Your task to perform on an android device: Open Youtube and go to the subscriptions tab Image 0: 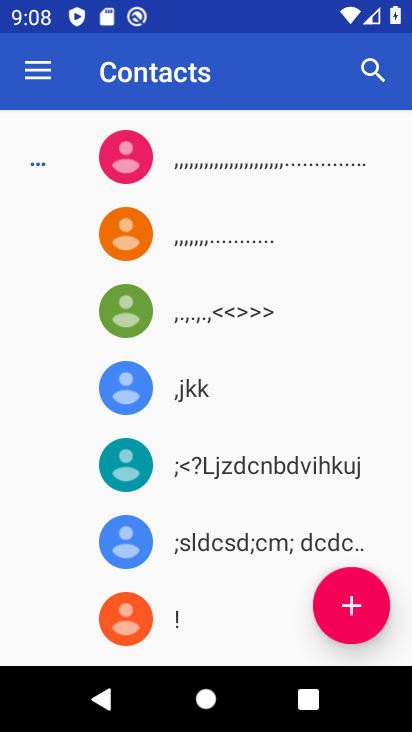
Step 0: press home button
Your task to perform on an android device: Open Youtube and go to the subscriptions tab Image 1: 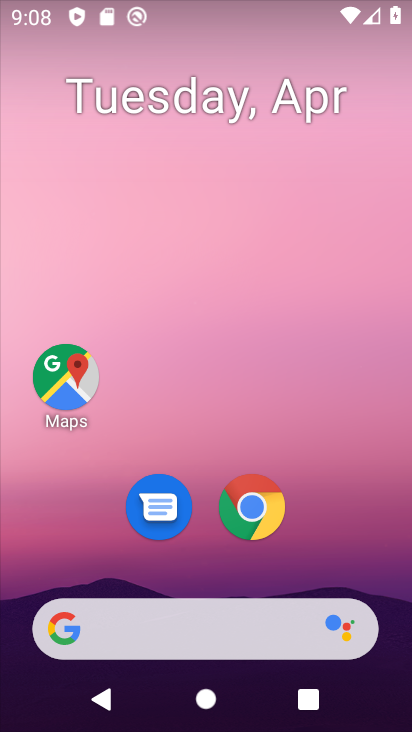
Step 1: drag from (326, 556) to (346, 71)
Your task to perform on an android device: Open Youtube and go to the subscriptions tab Image 2: 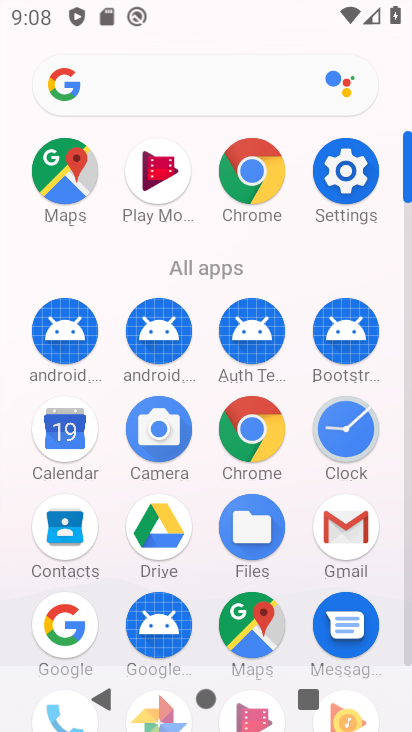
Step 2: drag from (304, 641) to (310, 325)
Your task to perform on an android device: Open Youtube and go to the subscriptions tab Image 3: 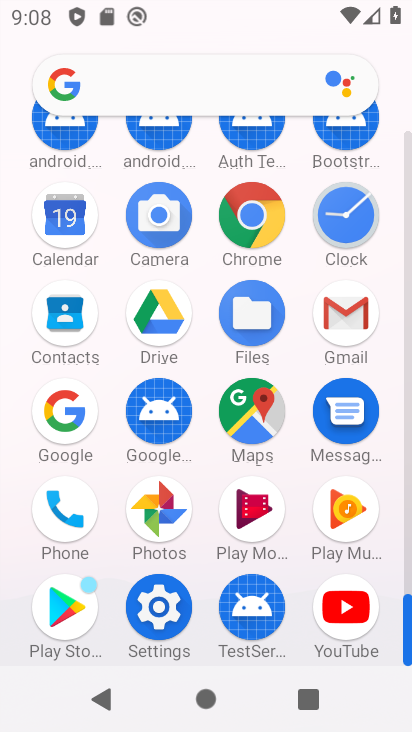
Step 3: click (353, 598)
Your task to perform on an android device: Open Youtube and go to the subscriptions tab Image 4: 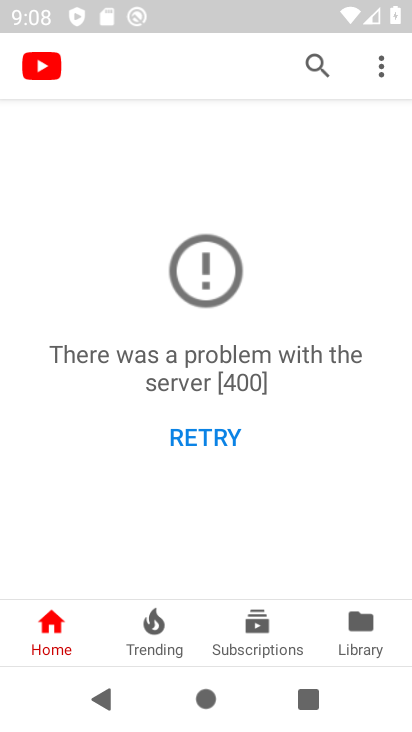
Step 4: click (249, 626)
Your task to perform on an android device: Open Youtube and go to the subscriptions tab Image 5: 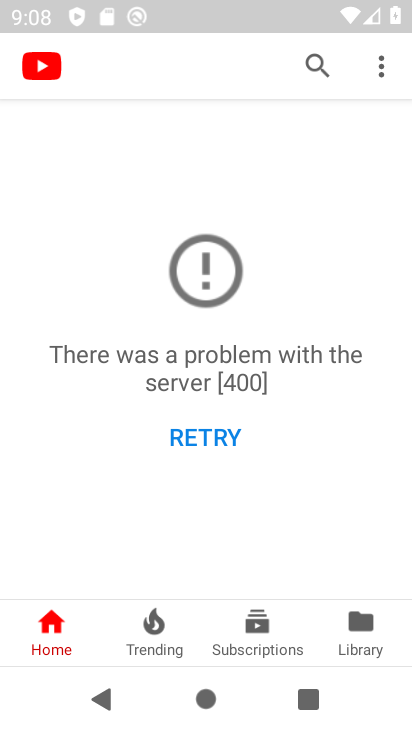
Step 5: click (255, 639)
Your task to perform on an android device: Open Youtube and go to the subscriptions tab Image 6: 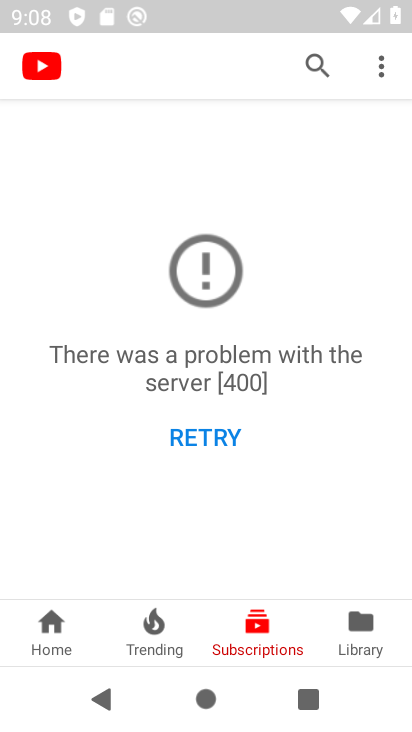
Step 6: task complete